Your task to perform on an android device: turn off location history Image 0: 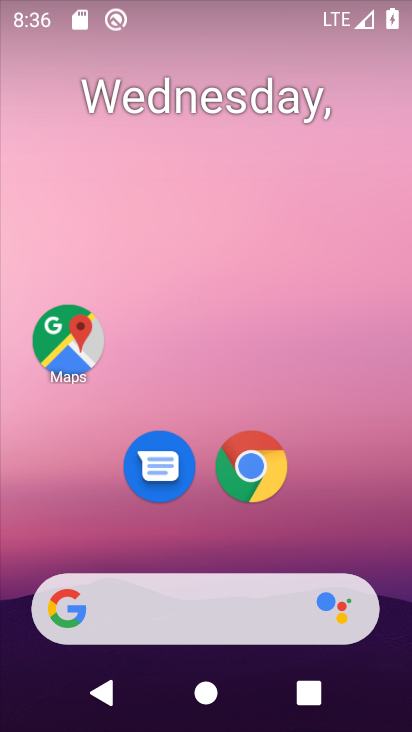
Step 0: drag from (216, 709) to (212, 187)
Your task to perform on an android device: turn off location history Image 1: 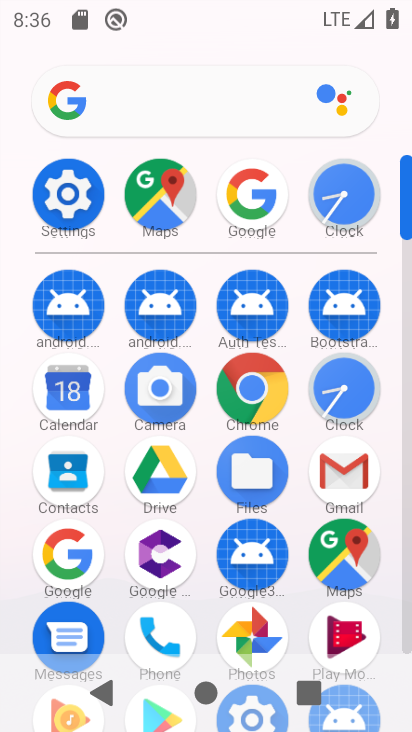
Step 1: click (54, 189)
Your task to perform on an android device: turn off location history Image 2: 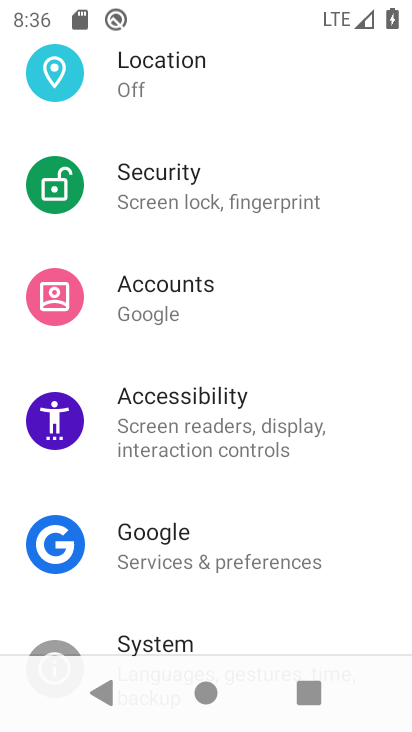
Step 2: click (130, 85)
Your task to perform on an android device: turn off location history Image 3: 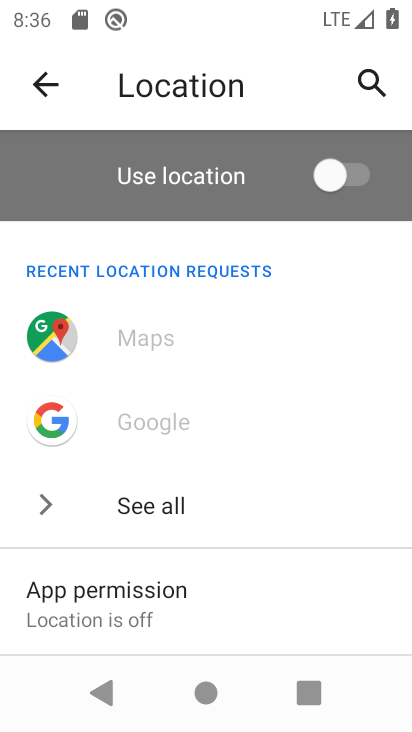
Step 3: drag from (116, 618) to (115, 250)
Your task to perform on an android device: turn off location history Image 4: 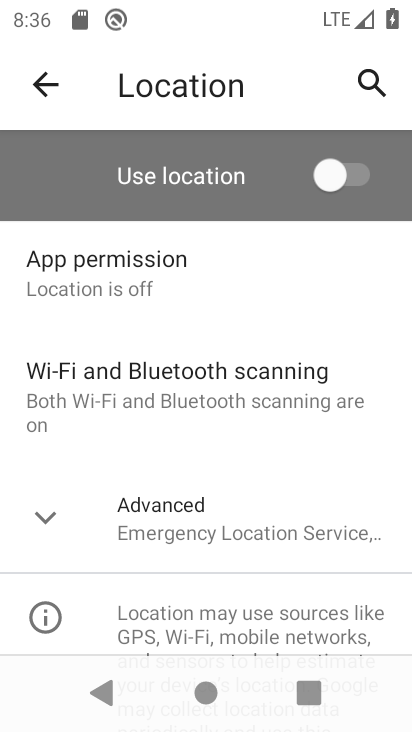
Step 4: click (174, 527)
Your task to perform on an android device: turn off location history Image 5: 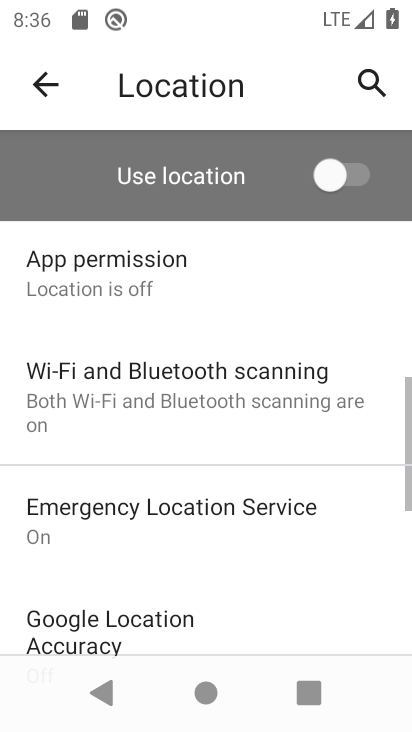
Step 5: drag from (206, 629) to (214, 337)
Your task to perform on an android device: turn off location history Image 6: 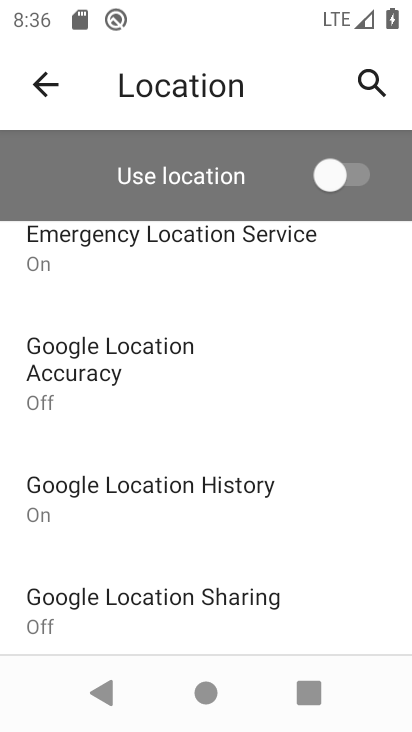
Step 6: click (145, 491)
Your task to perform on an android device: turn off location history Image 7: 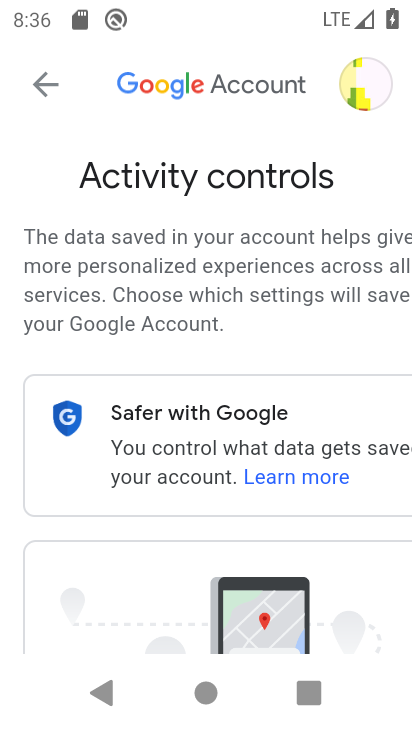
Step 7: drag from (145, 605) to (162, 250)
Your task to perform on an android device: turn off location history Image 8: 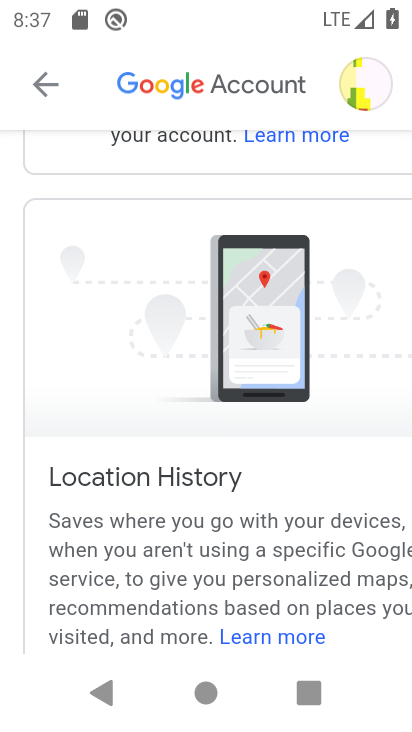
Step 8: drag from (197, 615) to (195, 192)
Your task to perform on an android device: turn off location history Image 9: 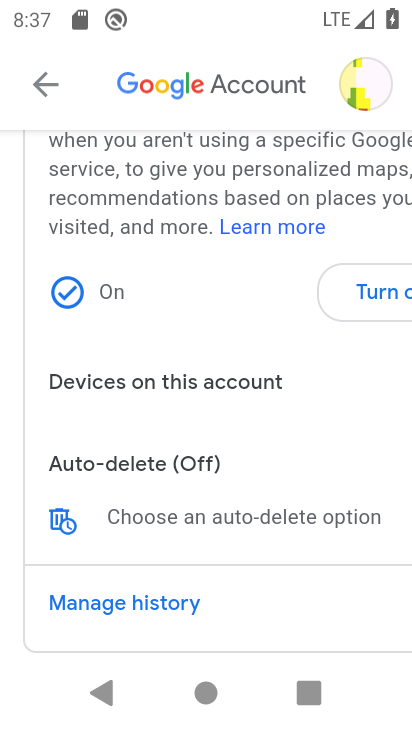
Step 9: click (372, 293)
Your task to perform on an android device: turn off location history Image 10: 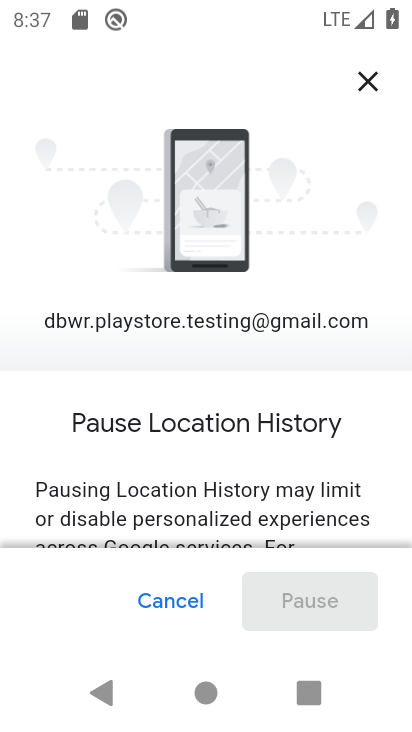
Step 10: drag from (313, 532) to (284, 122)
Your task to perform on an android device: turn off location history Image 11: 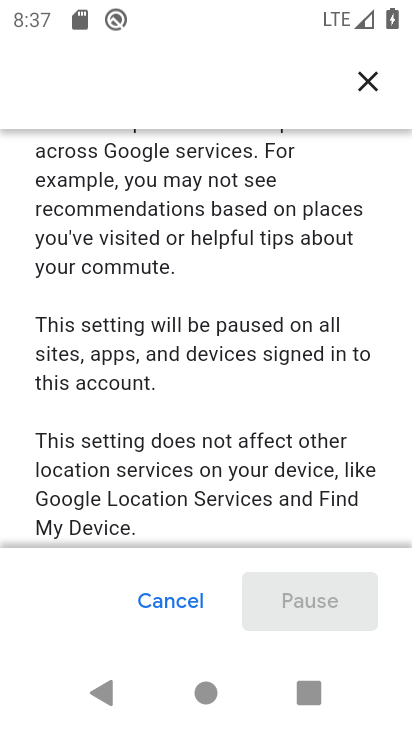
Step 11: drag from (234, 512) to (234, 146)
Your task to perform on an android device: turn off location history Image 12: 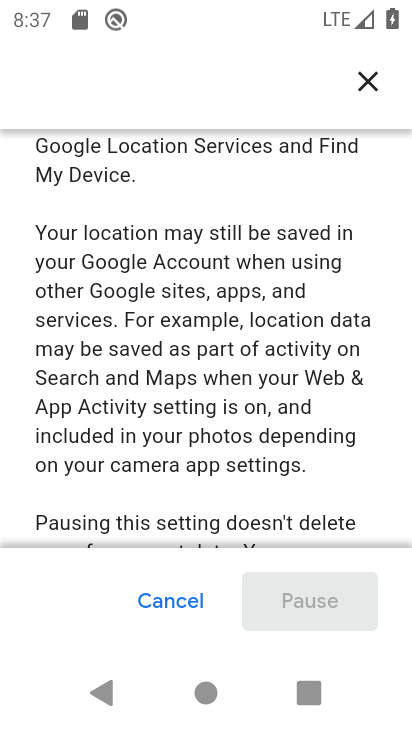
Step 12: drag from (321, 434) to (312, 122)
Your task to perform on an android device: turn off location history Image 13: 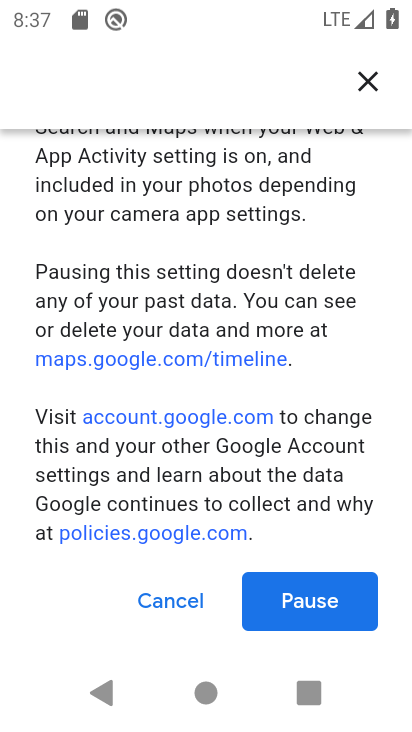
Step 13: click (304, 600)
Your task to perform on an android device: turn off location history Image 14: 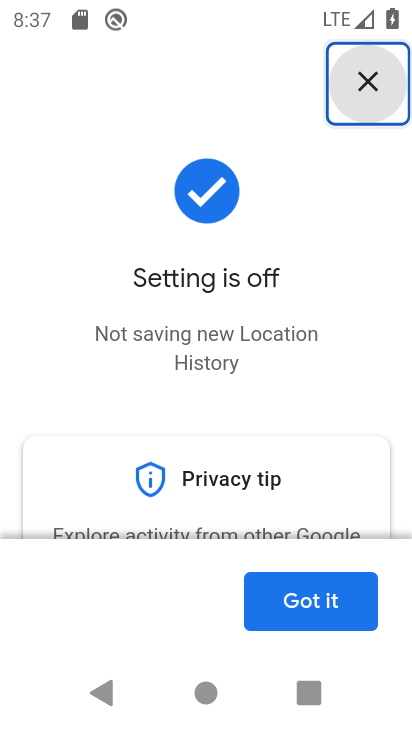
Step 14: click (305, 599)
Your task to perform on an android device: turn off location history Image 15: 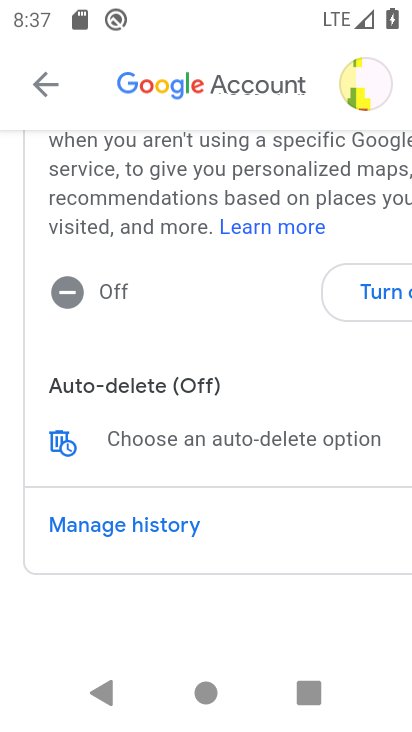
Step 15: task complete